Your task to perform on an android device: set an alarm Image 0: 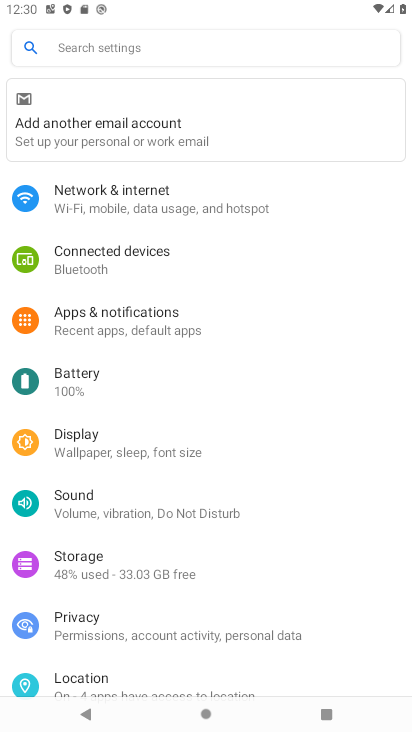
Step 0: press enter
Your task to perform on an android device: set an alarm Image 1: 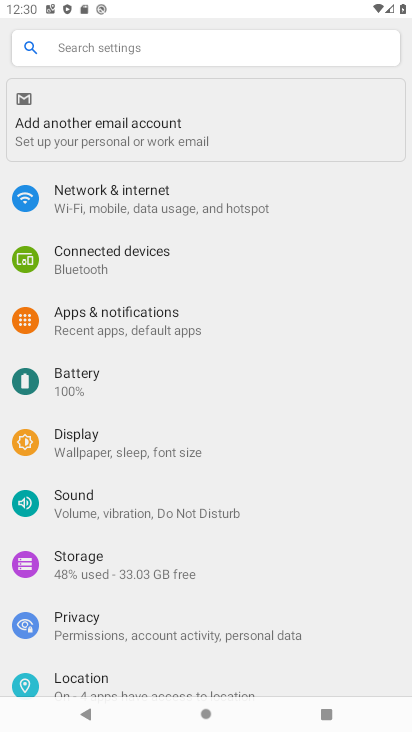
Step 1: press home button
Your task to perform on an android device: set an alarm Image 2: 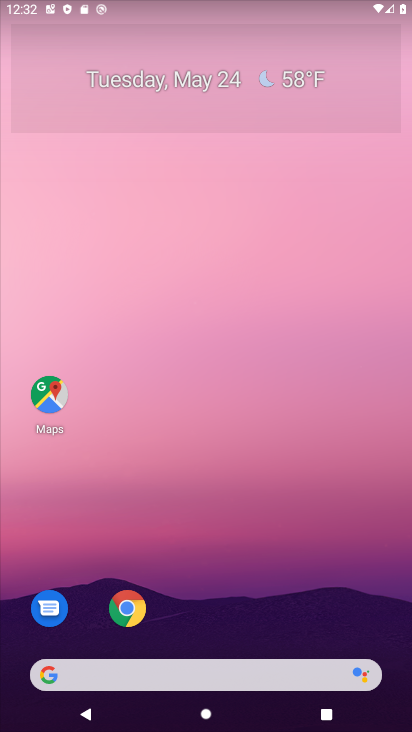
Step 2: drag from (227, 698) to (282, 12)
Your task to perform on an android device: set an alarm Image 3: 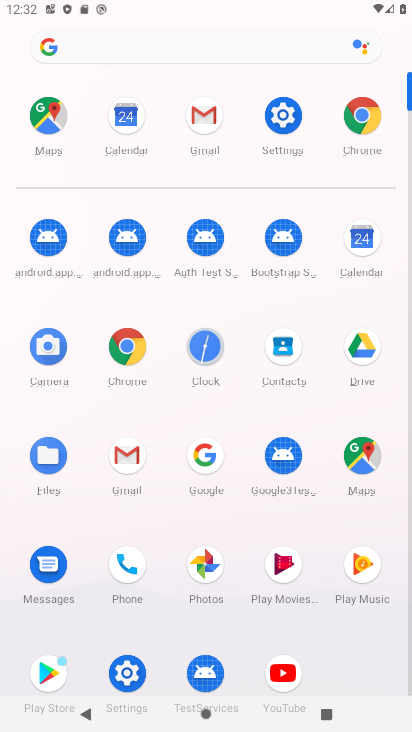
Step 3: click (202, 341)
Your task to perform on an android device: set an alarm Image 4: 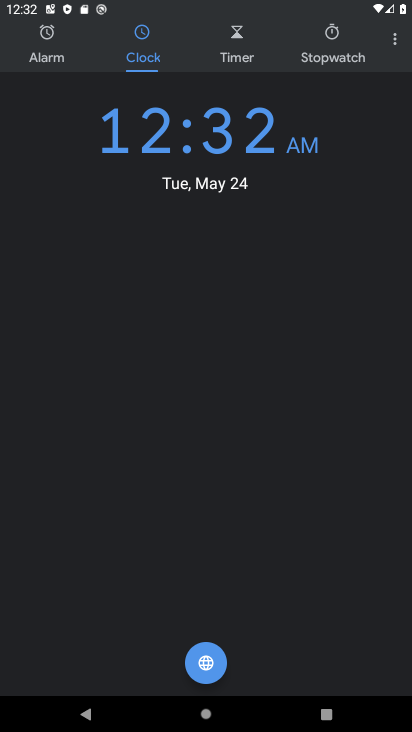
Step 4: click (65, 51)
Your task to perform on an android device: set an alarm Image 5: 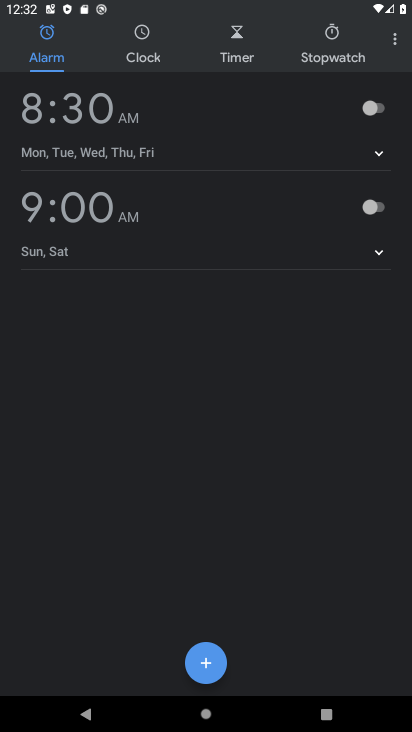
Step 5: click (379, 115)
Your task to perform on an android device: set an alarm Image 6: 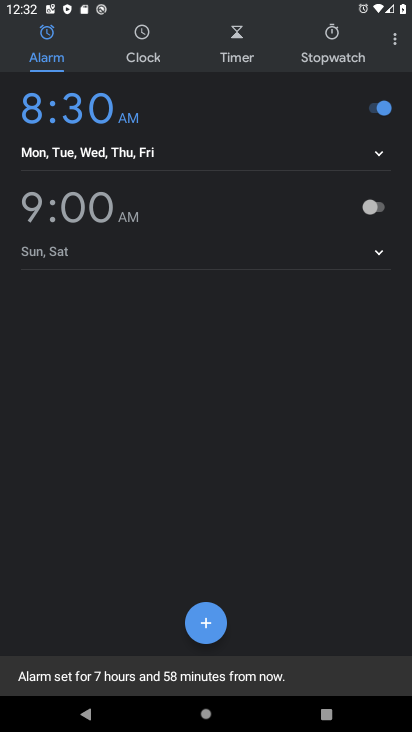
Step 6: task complete